Your task to perform on an android device: Open the calendar app, open the side menu, and click the "Day" option Image 0: 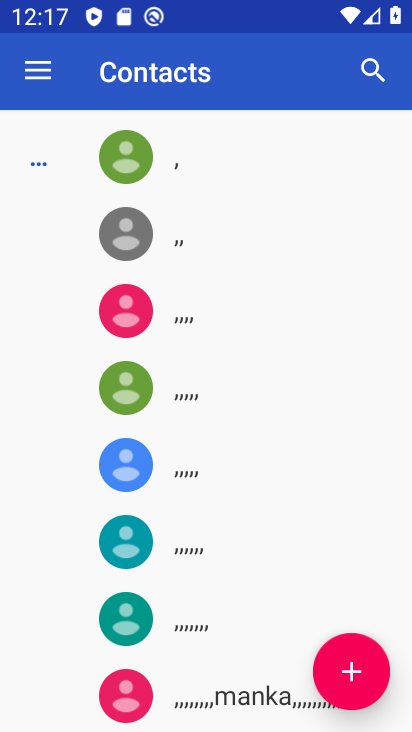
Step 0: press home button
Your task to perform on an android device: Open the calendar app, open the side menu, and click the "Day" option Image 1: 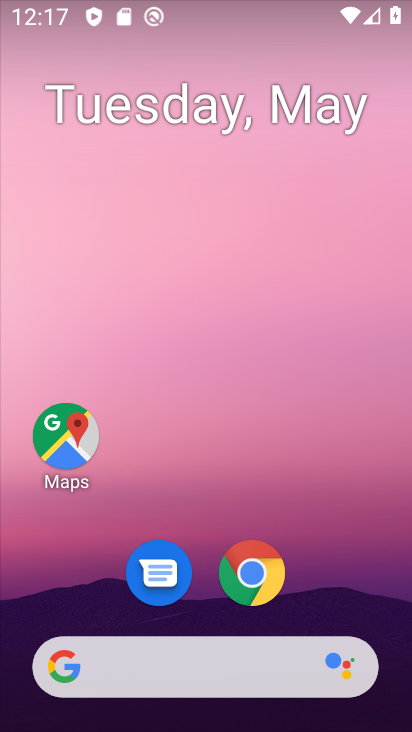
Step 1: drag from (341, 555) to (262, 35)
Your task to perform on an android device: Open the calendar app, open the side menu, and click the "Day" option Image 2: 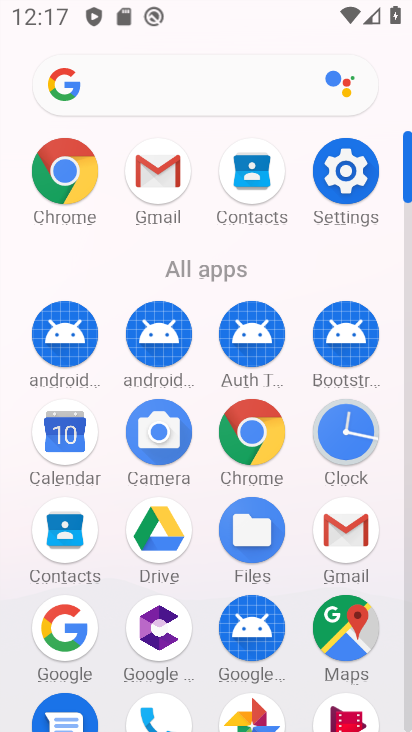
Step 2: click (49, 458)
Your task to perform on an android device: Open the calendar app, open the side menu, and click the "Day" option Image 3: 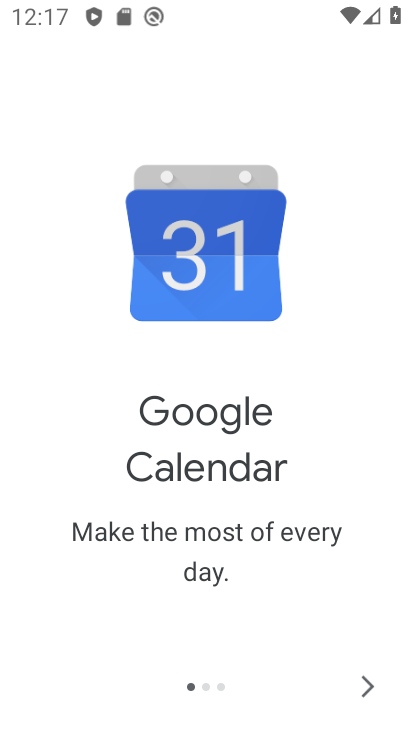
Step 3: click (387, 704)
Your task to perform on an android device: Open the calendar app, open the side menu, and click the "Day" option Image 4: 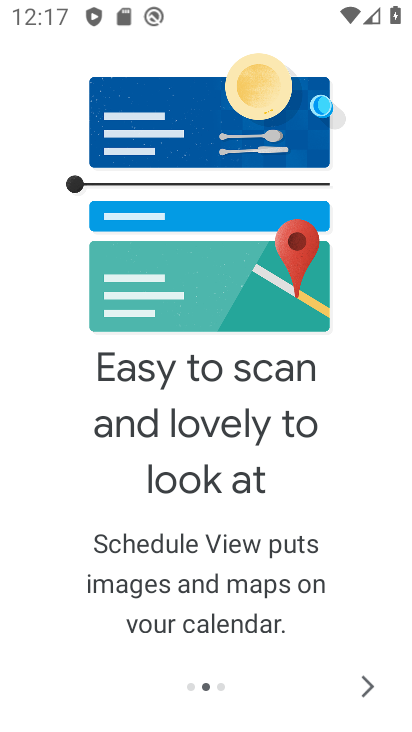
Step 4: click (364, 689)
Your task to perform on an android device: Open the calendar app, open the side menu, and click the "Day" option Image 5: 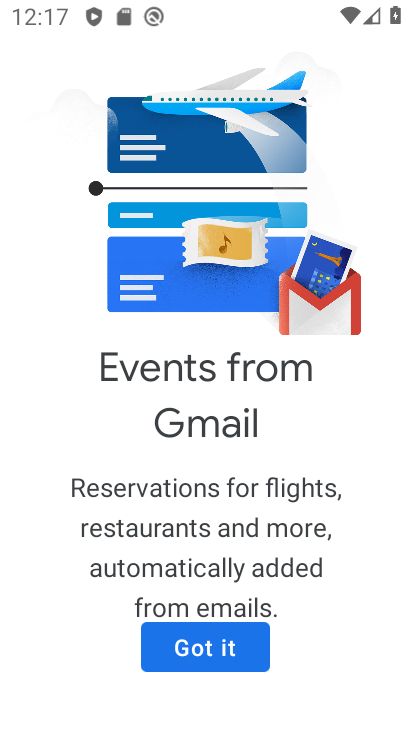
Step 5: click (229, 650)
Your task to perform on an android device: Open the calendar app, open the side menu, and click the "Day" option Image 6: 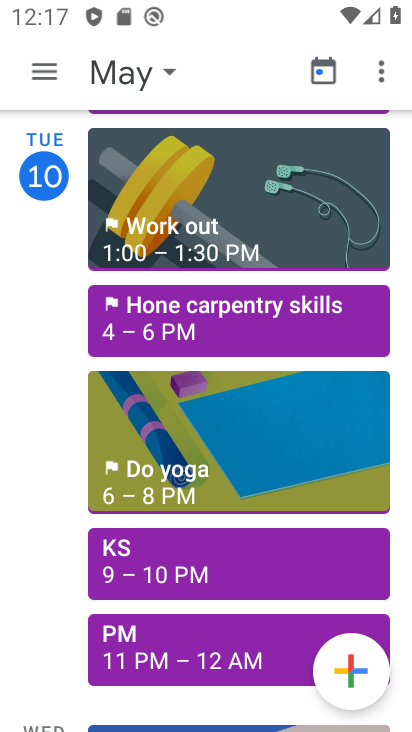
Step 6: click (39, 77)
Your task to perform on an android device: Open the calendar app, open the side menu, and click the "Day" option Image 7: 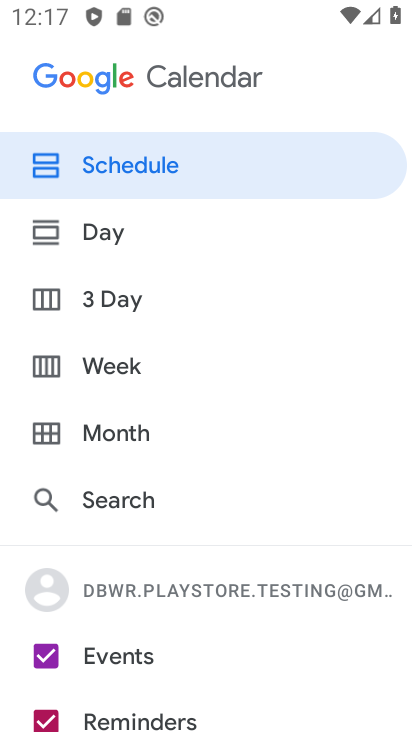
Step 7: click (83, 234)
Your task to perform on an android device: Open the calendar app, open the side menu, and click the "Day" option Image 8: 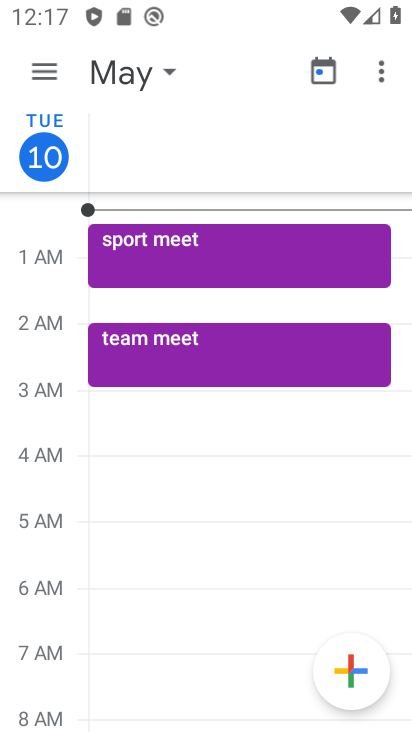
Step 8: task complete